Your task to perform on an android device: turn on airplane mode Image 0: 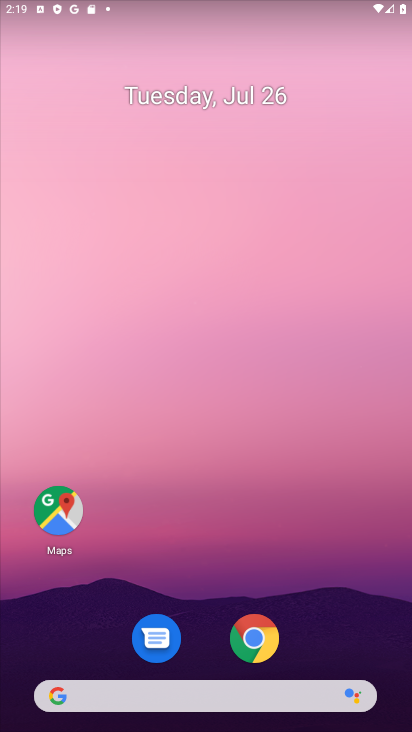
Step 0: drag from (158, 718) to (269, 115)
Your task to perform on an android device: turn on airplane mode Image 1: 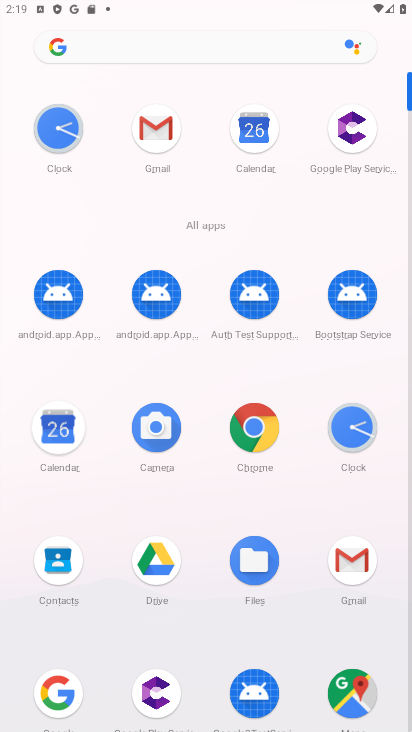
Step 1: drag from (228, 661) to (346, 17)
Your task to perform on an android device: turn on airplane mode Image 2: 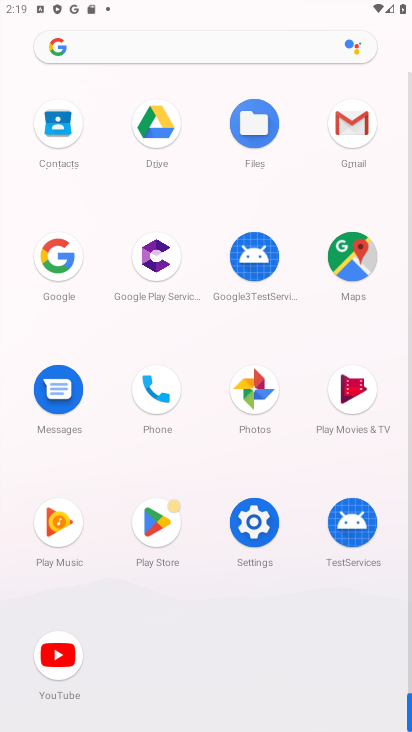
Step 2: click (260, 531)
Your task to perform on an android device: turn on airplane mode Image 3: 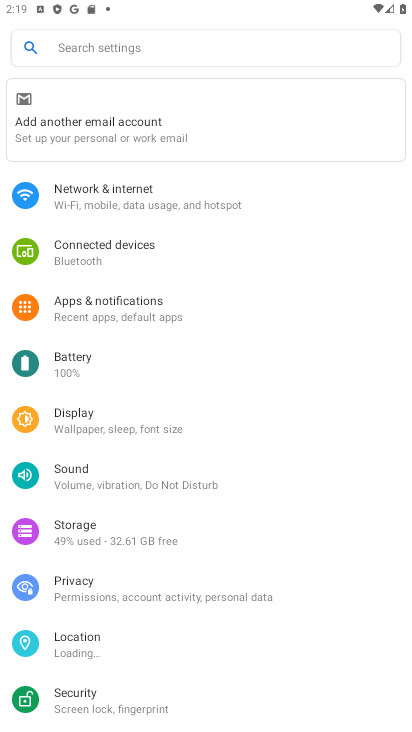
Step 3: click (178, 196)
Your task to perform on an android device: turn on airplane mode Image 4: 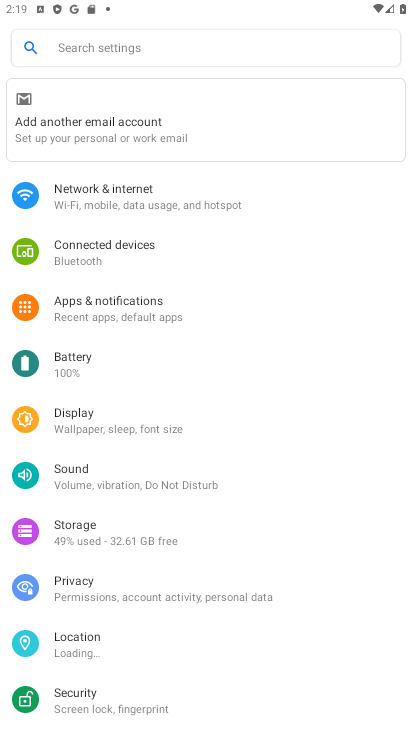
Step 4: click (178, 196)
Your task to perform on an android device: turn on airplane mode Image 5: 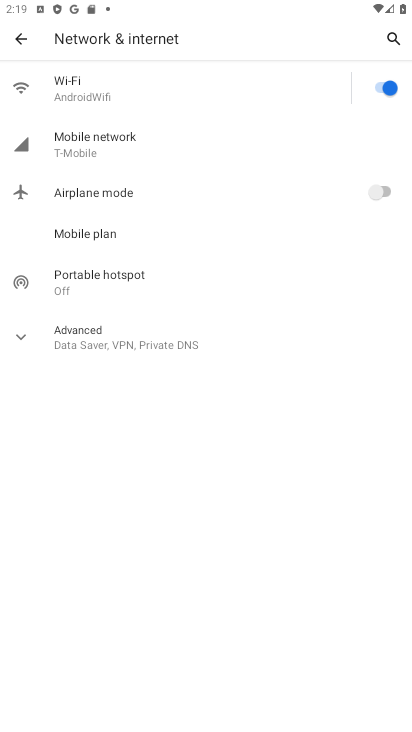
Step 5: click (383, 183)
Your task to perform on an android device: turn on airplane mode Image 6: 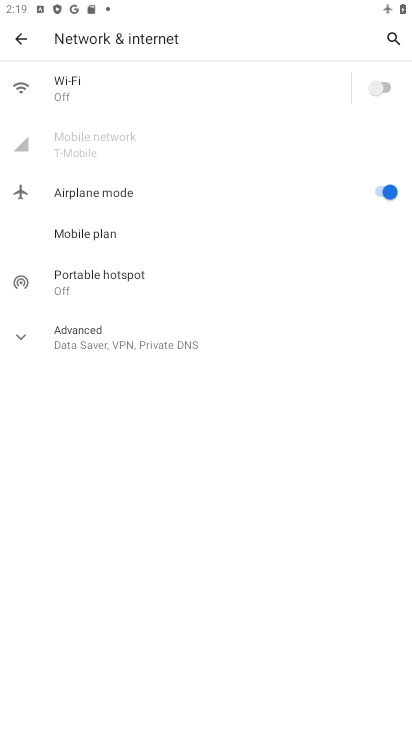
Step 6: task complete